Your task to perform on an android device: Open eBay Image 0: 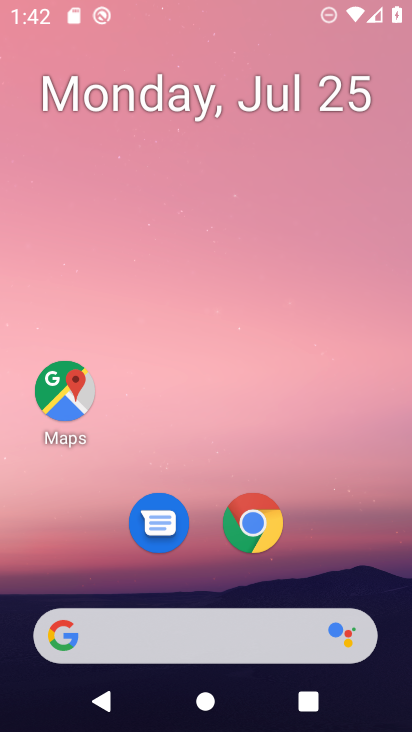
Step 0: press home button
Your task to perform on an android device: Open eBay Image 1: 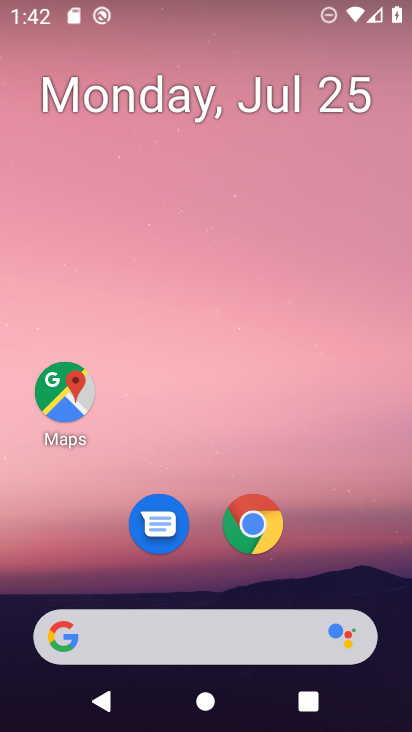
Step 1: press home button
Your task to perform on an android device: Open eBay Image 2: 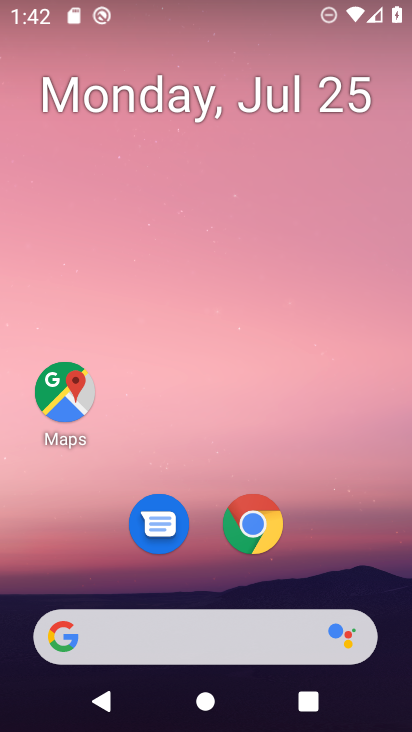
Step 2: click (244, 521)
Your task to perform on an android device: Open eBay Image 3: 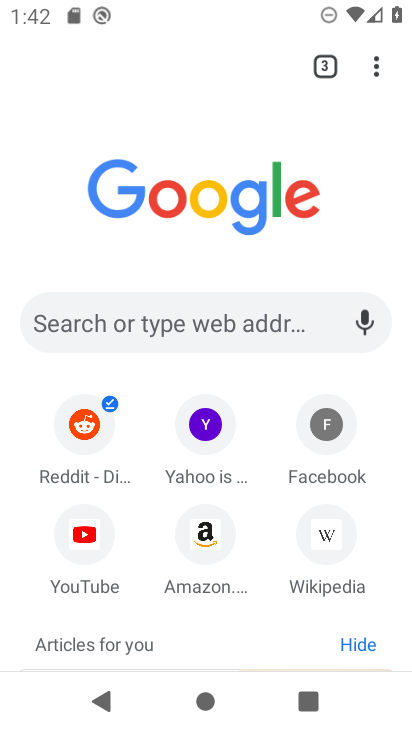
Step 3: click (149, 316)
Your task to perform on an android device: Open eBay Image 4: 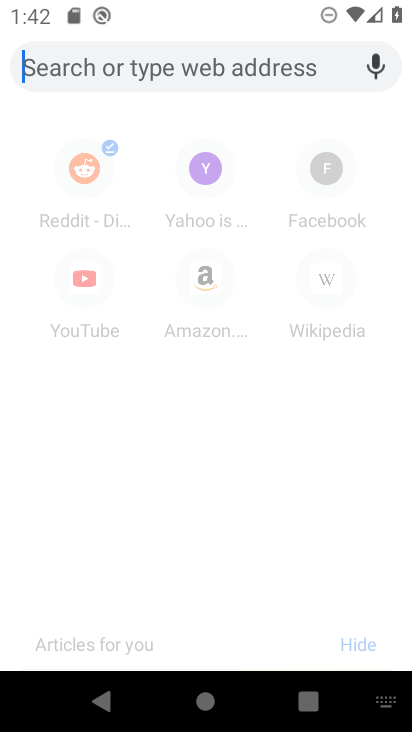
Step 4: type "ebay"
Your task to perform on an android device: Open eBay Image 5: 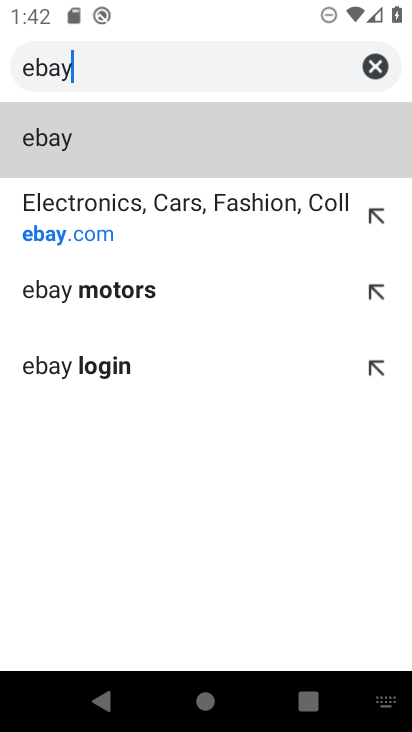
Step 5: click (167, 216)
Your task to perform on an android device: Open eBay Image 6: 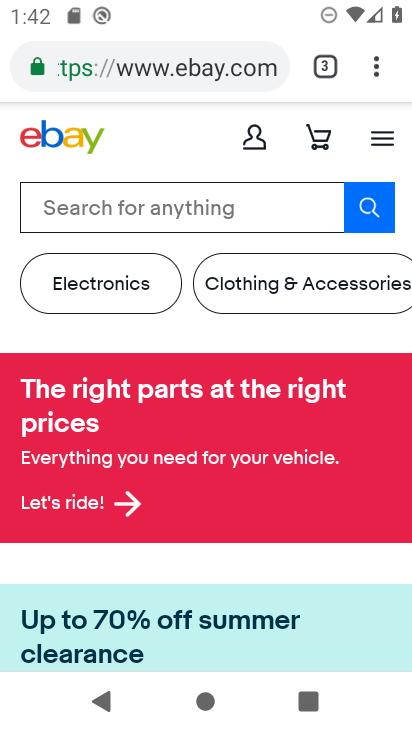
Step 6: drag from (204, 598) to (334, 225)
Your task to perform on an android device: Open eBay Image 7: 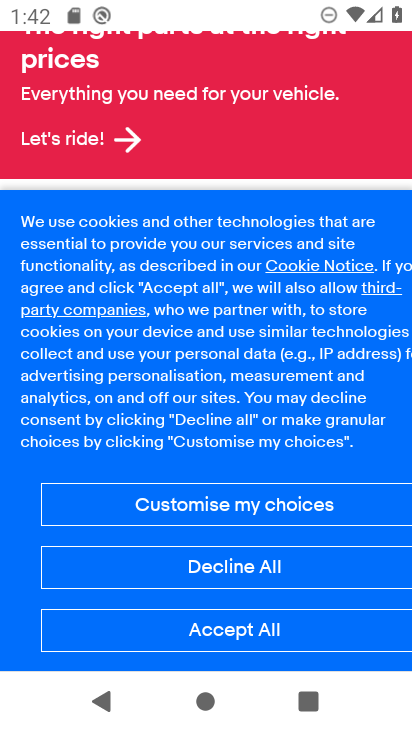
Step 7: click (254, 640)
Your task to perform on an android device: Open eBay Image 8: 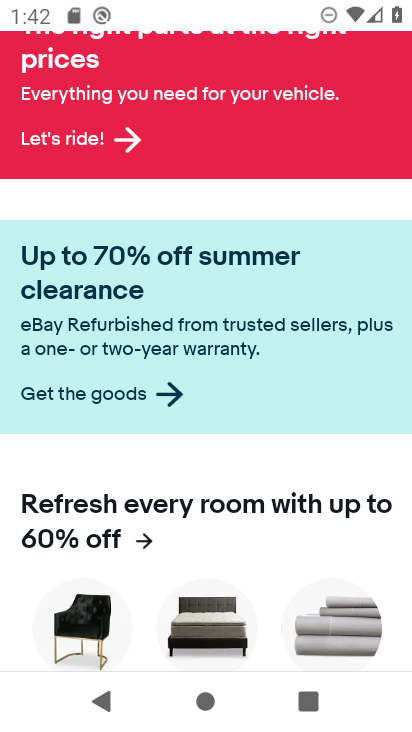
Step 8: task complete